Your task to perform on an android device: set an alarm Image 0: 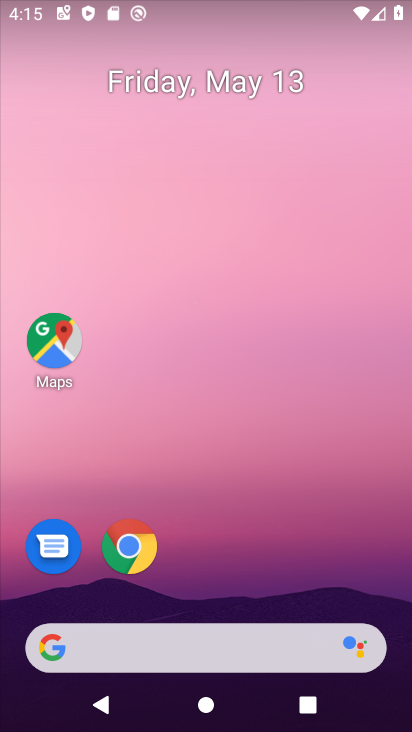
Step 0: drag from (193, 577) to (249, 190)
Your task to perform on an android device: set an alarm Image 1: 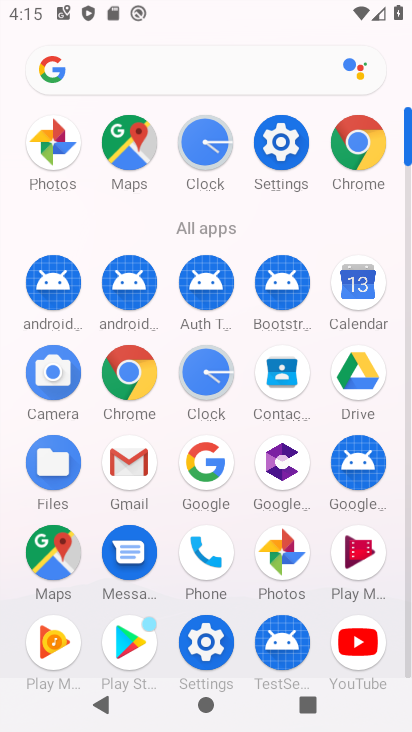
Step 1: click (208, 364)
Your task to perform on an android device: set an alarm Image 2: 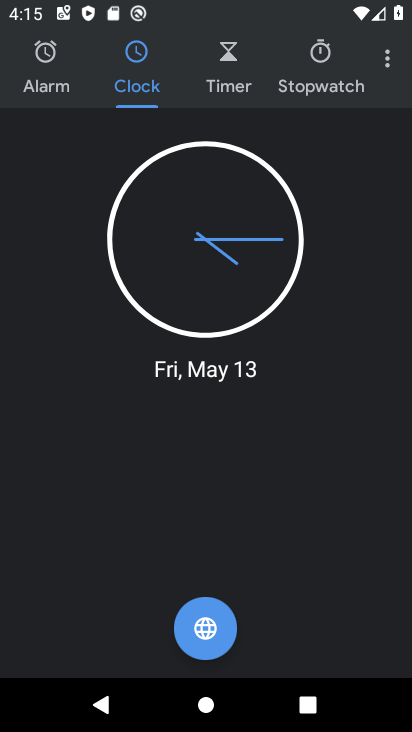
Step 2: click (35, 70)
Your task to perform on an android device: set an alarm Image 3: 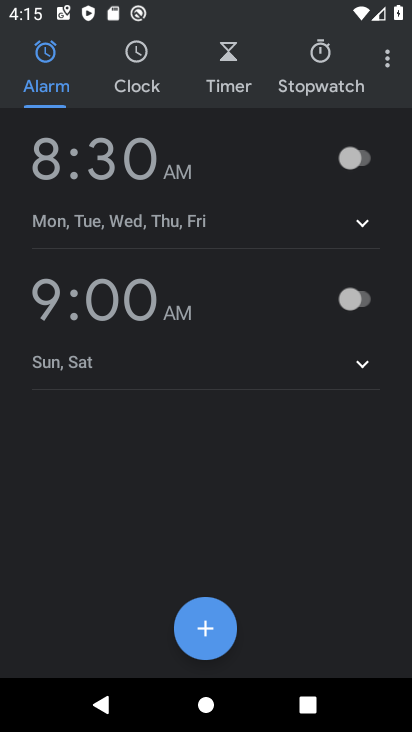
Step 3: click (376, 156)
Your task to perform on an android device: set an alarm Image 4: 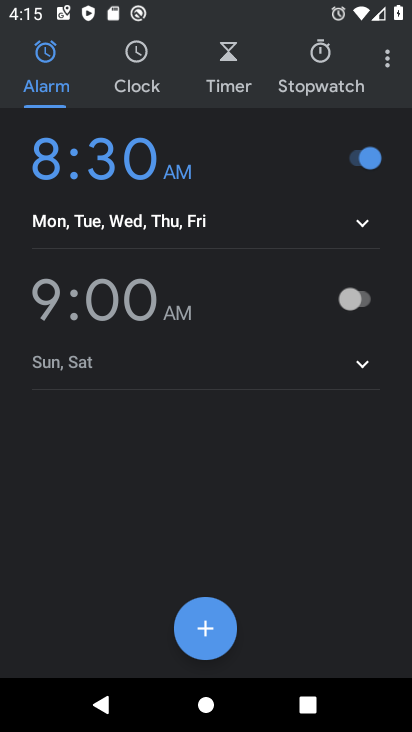
Step 4: task complete